Your task to perform on an android device: toggle notifications settings in the gmail app Image 0: 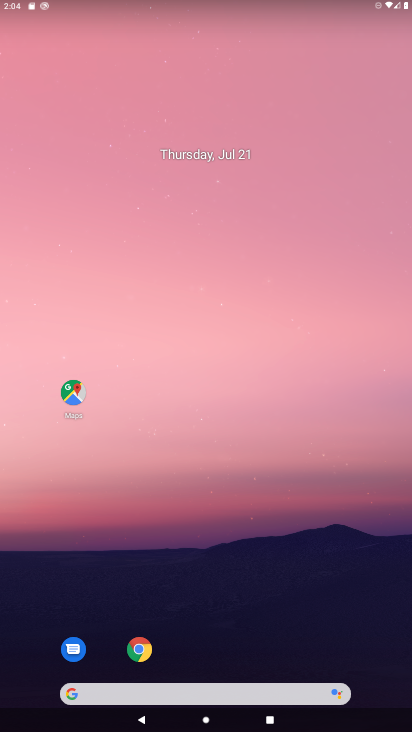
Step 0: drag from (264, 620) to (221, 41)
Your task to perform on an android device: toggle notifications settings in the gmail app Image 1: 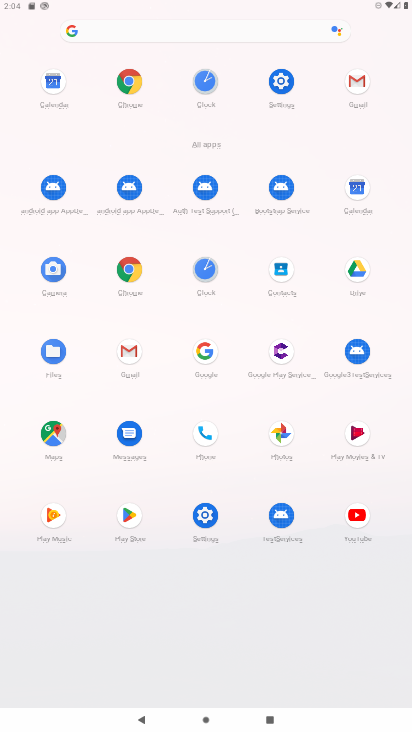
Step 1: click (361, 84)
Your task to perform on an android device: toggle notifications settings in the gmail app Image 2: 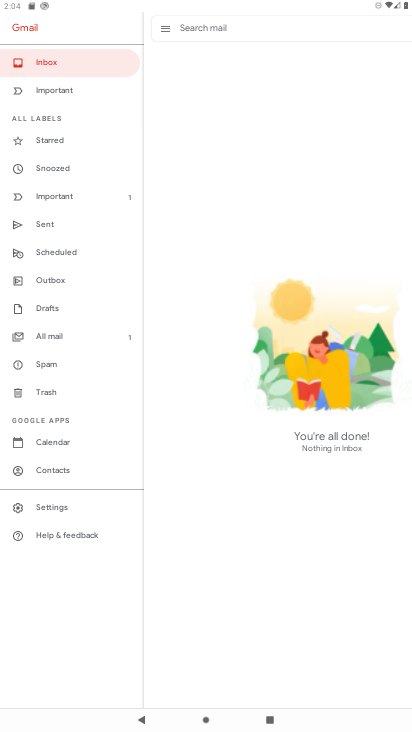
Step 2: click (53, 503)
Your task to perform on an android device: toggle notifications settings in the gmail app Image 3: 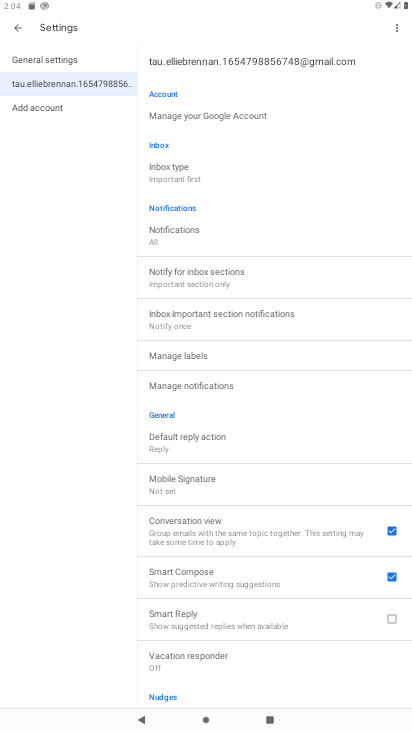
Step 3: click (154, 236)
Your task to perform on an android device: toggle notifications settings in the gmail app Image 4: 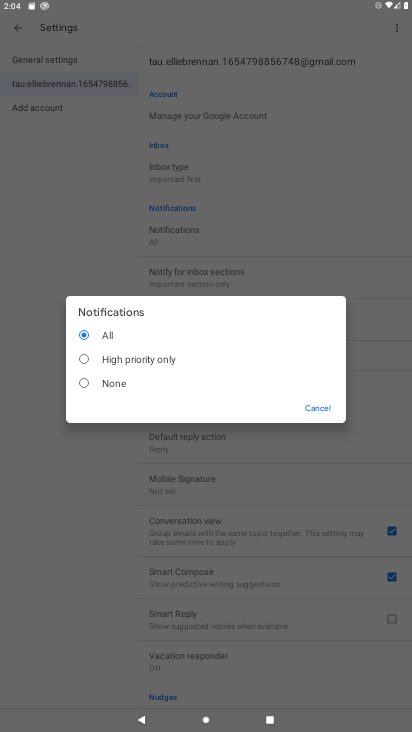
Step 4: click (110, 360)
Your task to perform on an android device: toggle notifications settings in the gmail app Image 5: 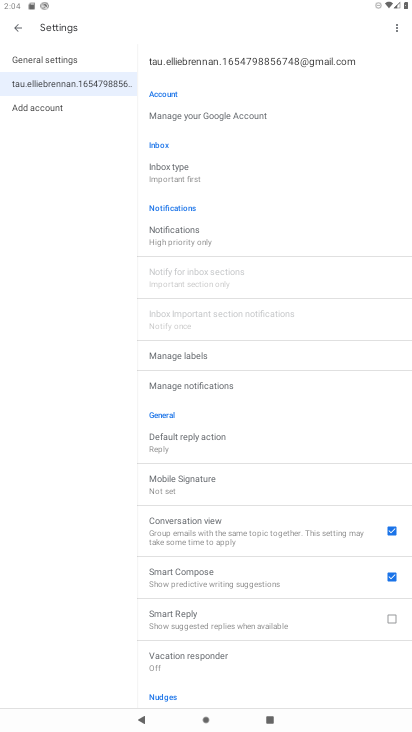
Step 5: task complete